Your task to perform on an android device: find photos in the google photos app Image 0: 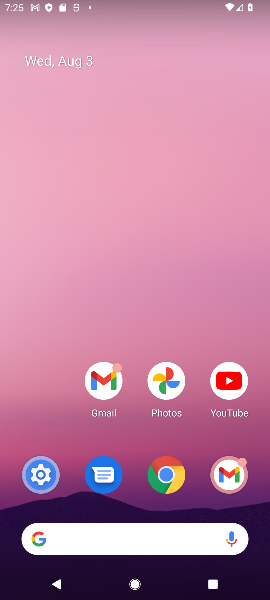
Step 0: click (163, 387)
Your task to perform on an android device: find photos in the google photos app Image 1: 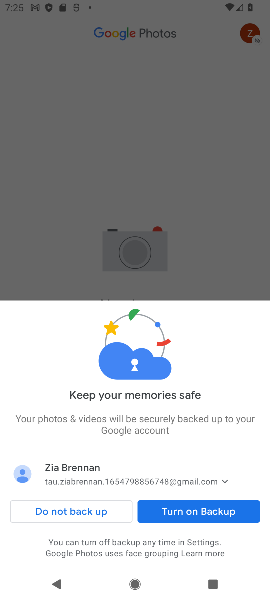
Step 1: click (177, 518)
Your task to perform on an android device: find photos in the google photos app Image 2: 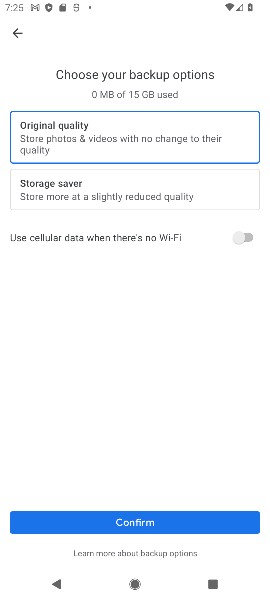
Step 2: click (157, 524)
Your task to perform on an android device: find photos in the google photos app Image 3: 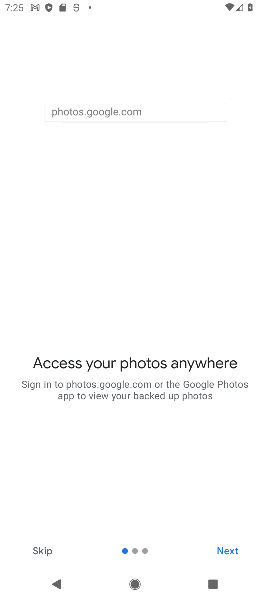
Step 3: click (40, 545)
Your task to perform on an android device: find photos in the google photos app Image 4: 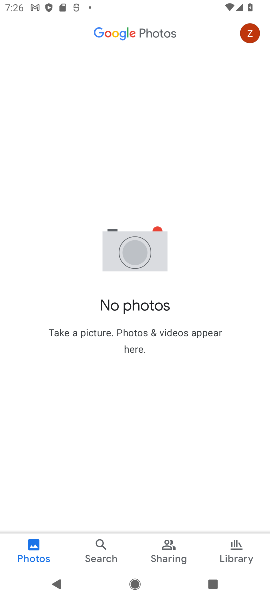
Step 4: task complete